Your task to perform on an android device: Search for Mexican restaurants on Maps Image 0: 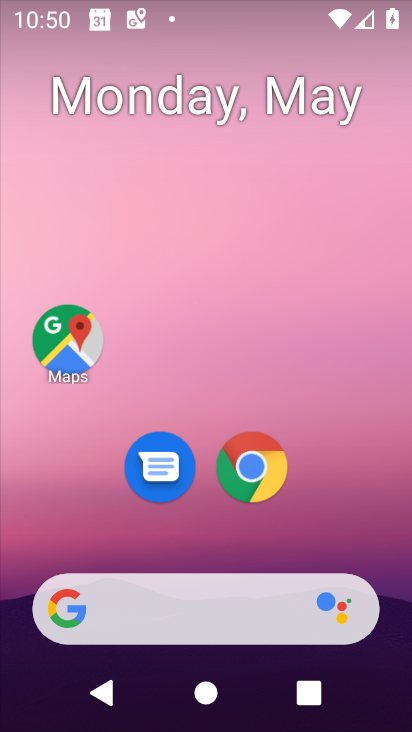
Step 0: drag from (351, 538) to (81, 78)
Your task to perform on an android device: Search for Mexican restaurants on Maps Image 1: 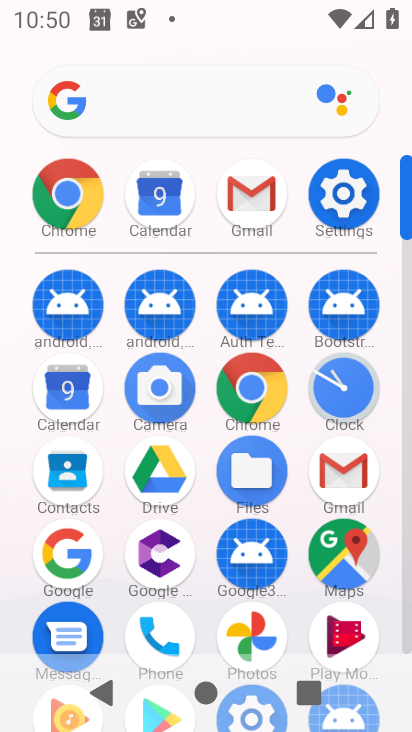
Step 1: drag from (330, 536) to (87, 165)
Your task to perform on an android device: Search for Mexican restaurants on Maps Image 2: 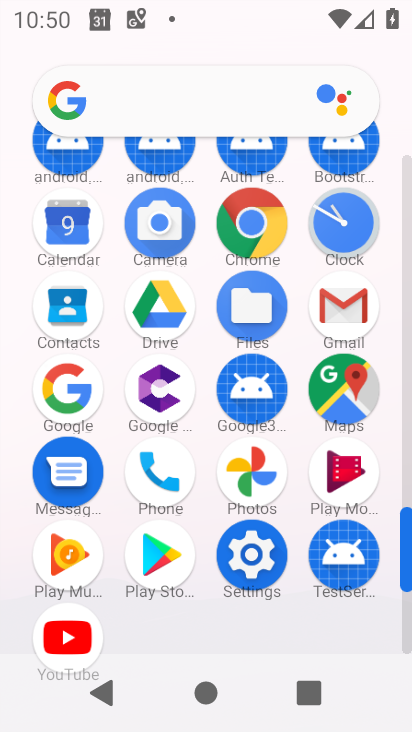
Step 2: click (328, 389)
Your task to perform on an android device: Search for Mexican restaurants on Maps Image 3: 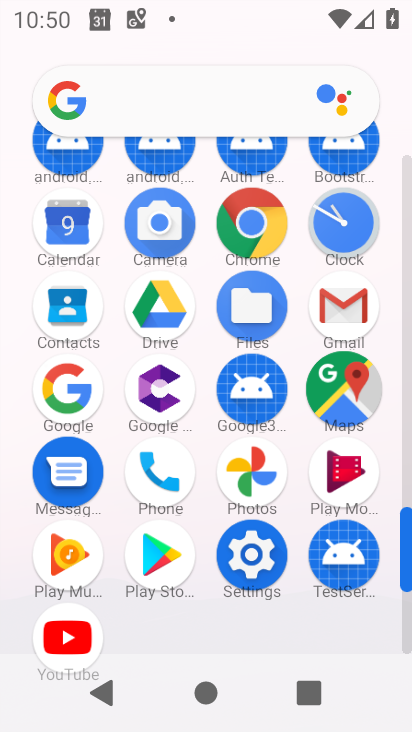
Step 3: click (332, 385)
Your task to perform on an android device: Search for Mexican restaurants on Maps Image 4: 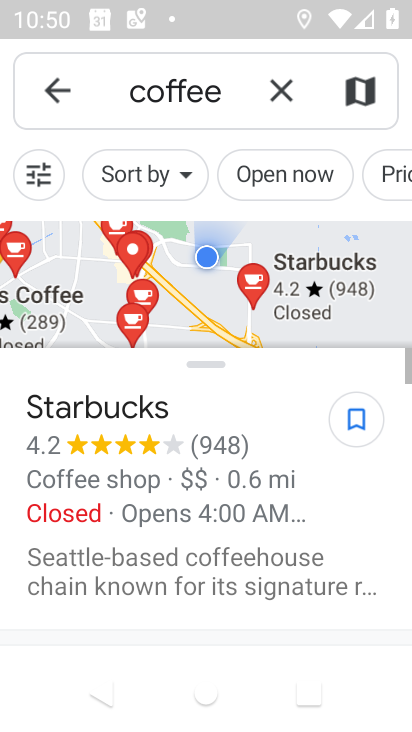
Step 4: click (280, 90)
Your task to perform on an android device: Search for Mexican restaurants on Maps Image 5: 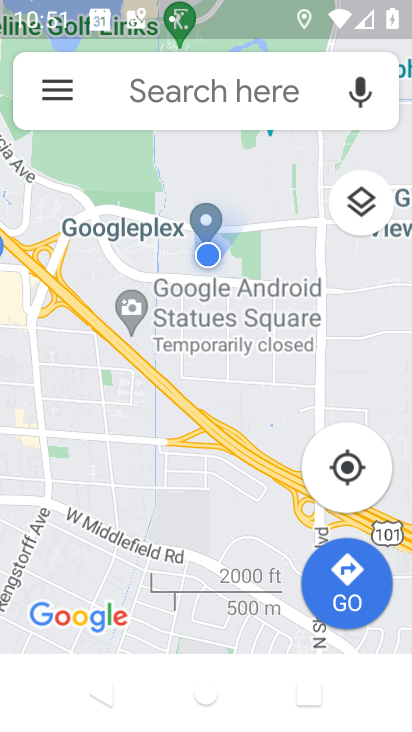
Step 5: click (145, 90)
Your task to perform on an android device: Search for Mexican restaurants on Maps Image 6: 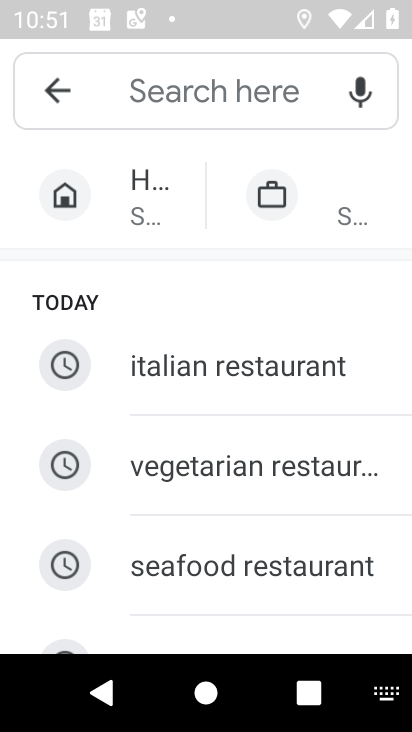
Step 6: type "mexican resturants"
Your task to perform on an android device: Search for Mexican restaurants on Maps Image 7: 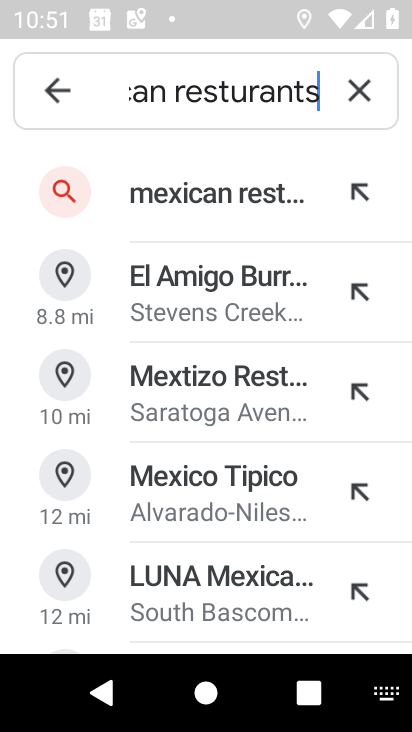
Step 7: click (205, 96)
Your task to perform on an android device: Search for Mexican restaurants on Maps Image 8: 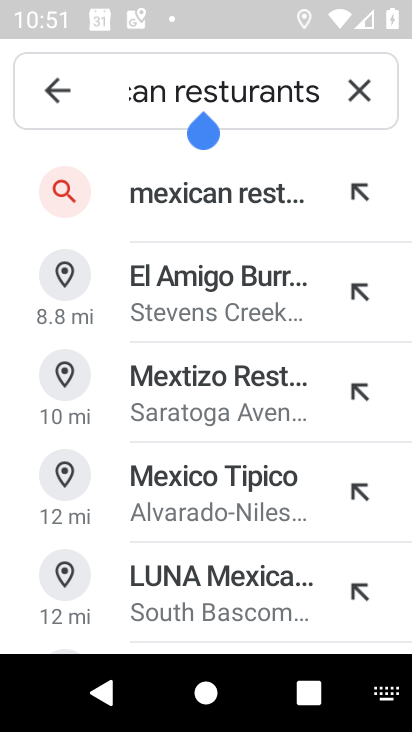
Step 8: click (312, 85)
Your task to perform on an android device: Search for Mexican restaurants on Maps Image 9: 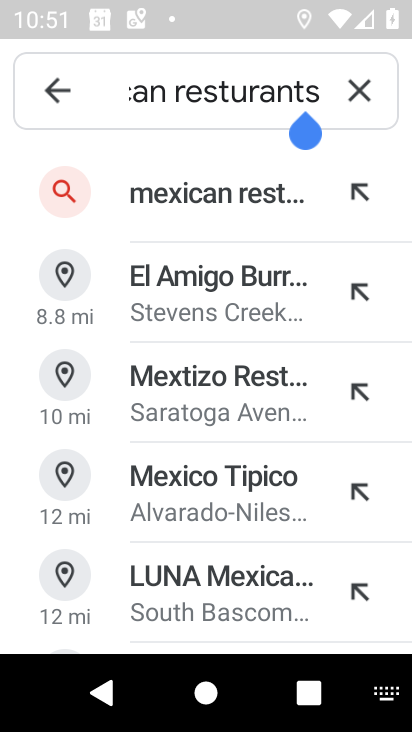
Step 9: click (223, 124)
Your task to perform on an android device: Search for Mexican restaurants on Maps Image 10: 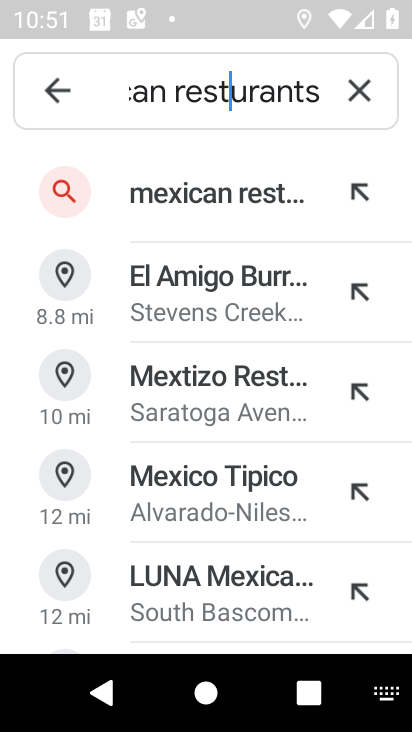
Step 10: click (258, 93)
Your task to perform on an android device: Search for Mexican restaurants on Maps Image 11: 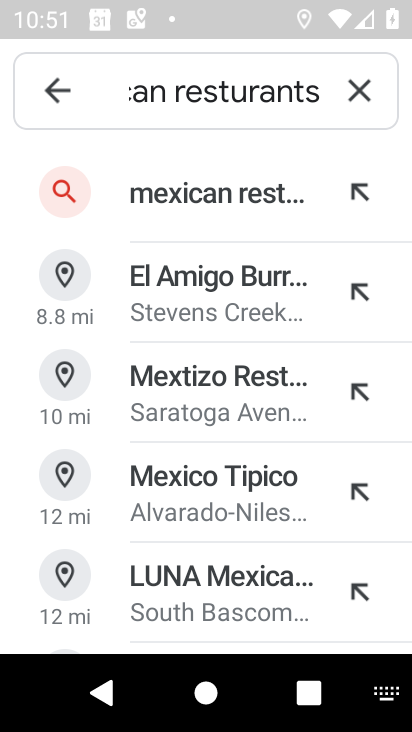
Step 11: click (265, 98)
Your task to perform on an android device: Search for Mexican restaurants on Maps Image 12: 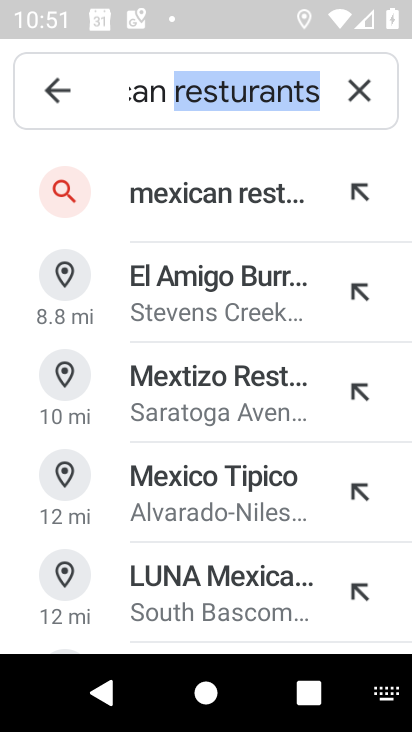
Step 12: click (266, 98)
Your task to perform on an android device: Search for Mexican restaurants on Maps Image 13: 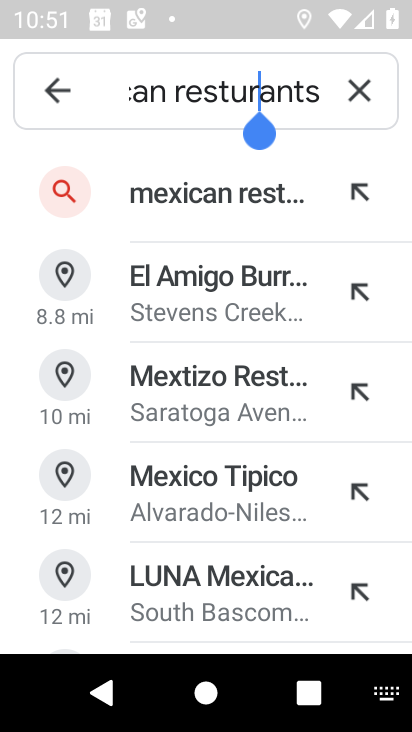
Step 13: click (278, 107)
Your task to perform on an android device: Search for Mexican restaurants on Maps Image 14: 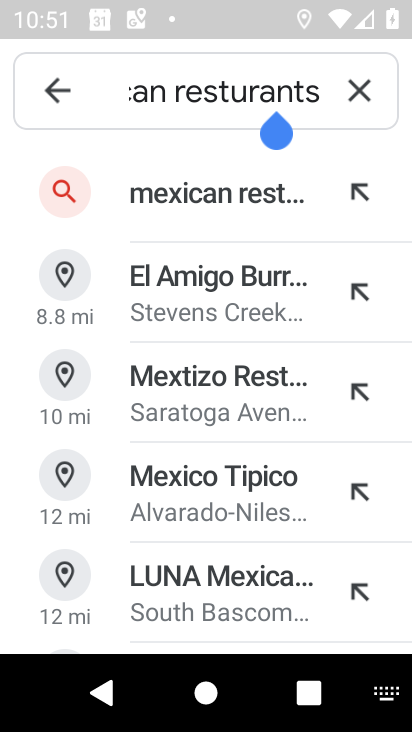
Step 14: click (245, 197)
Your task to perform on an android device: Search for Mexican restaurants on Maps Image 15: 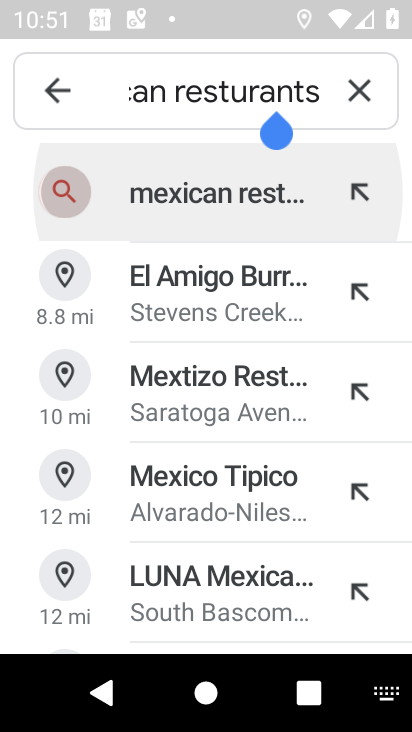
Step 15: click (245, 198)
Your task to perform on an android device: Search for Mexican restaurants on Maps Image 16: 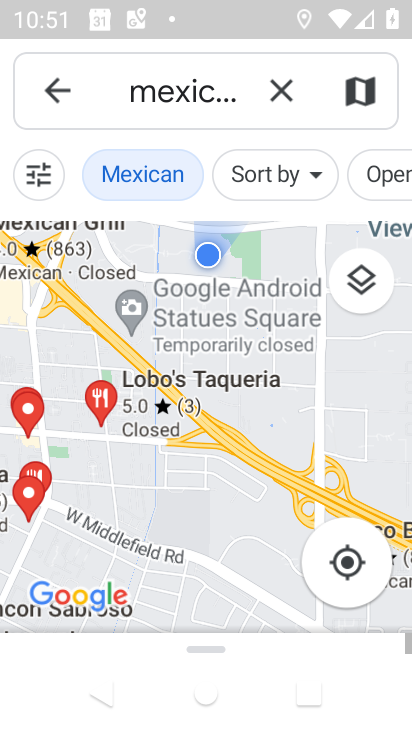
Step 16: task complete